Your task to perform on an android device: turn off improve location accuracy Image 0: 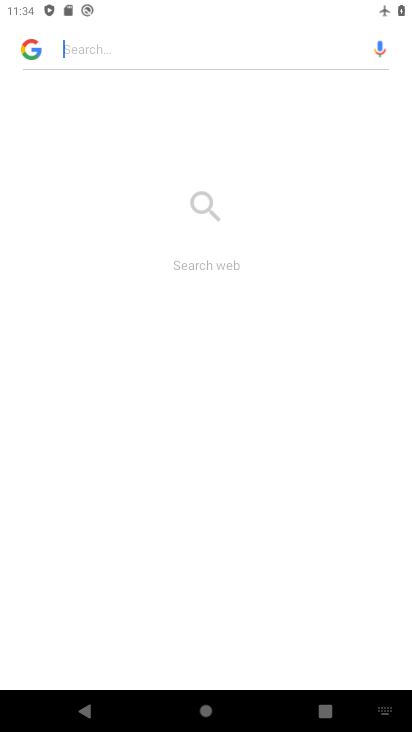
Step 0: press home button
Your task to perform on an android device: turn off improve location accuracy Image 1: 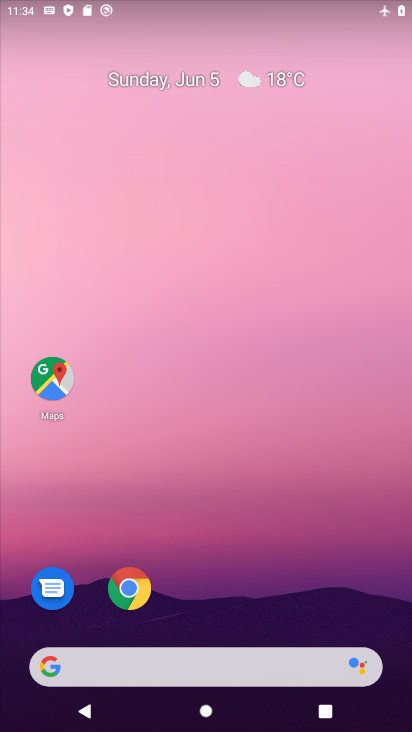
Step 1: drag from (266, 619) to (179, 181)
Your task to perform on an android device: turn off improve location accuracy Image 2: 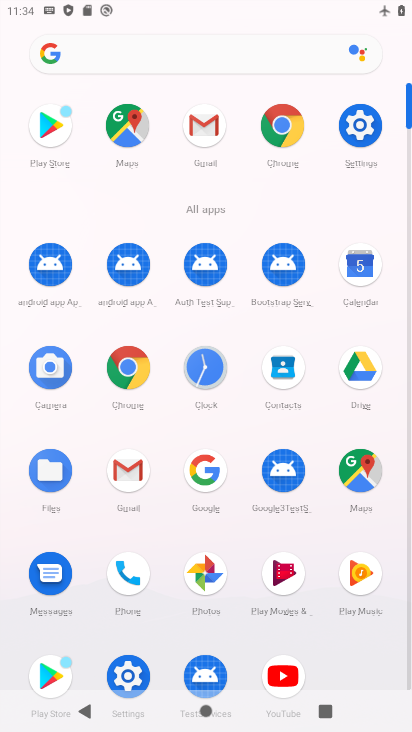
Step 2: click (369, 128)
Your task to perform on an android device: turn off improve location accuracy Image 3: 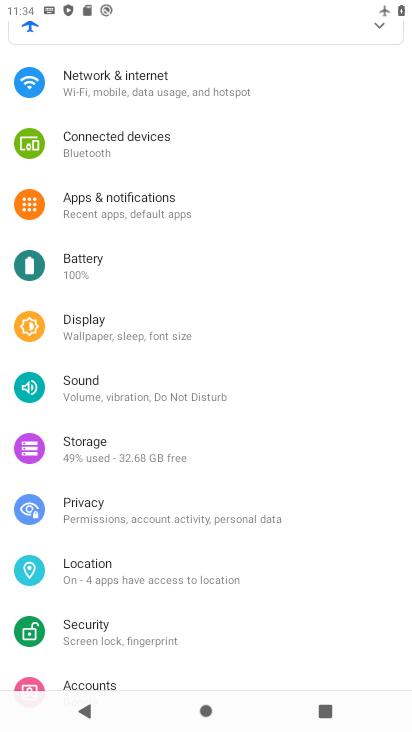
Step 3: click (278, 573)
Your task to perform on an android device: turn off improve location accuracy Image 4: 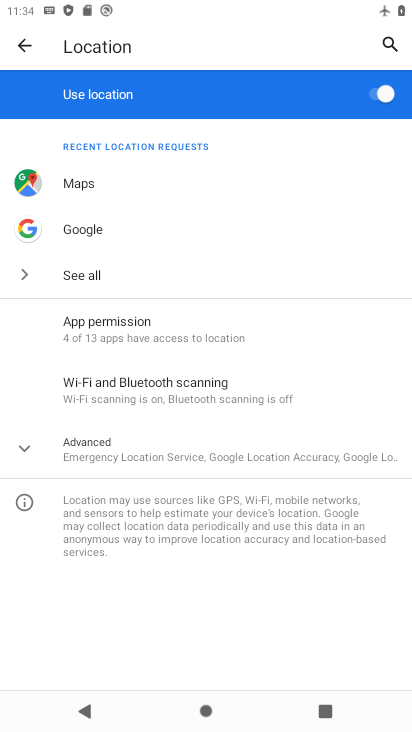
Step 4: click (298, 455)
Your task to perform on an android device: turn off improve location accuracy Image 5: 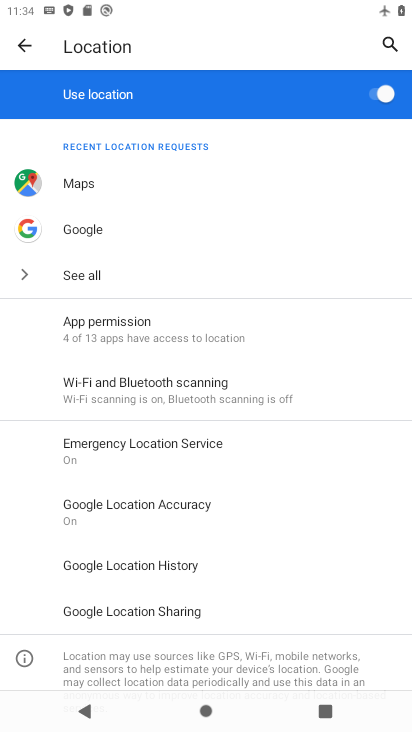
Step 5: click (271, 511)
Your task to perform on an android device: turn off improve location accuracy Image 6: 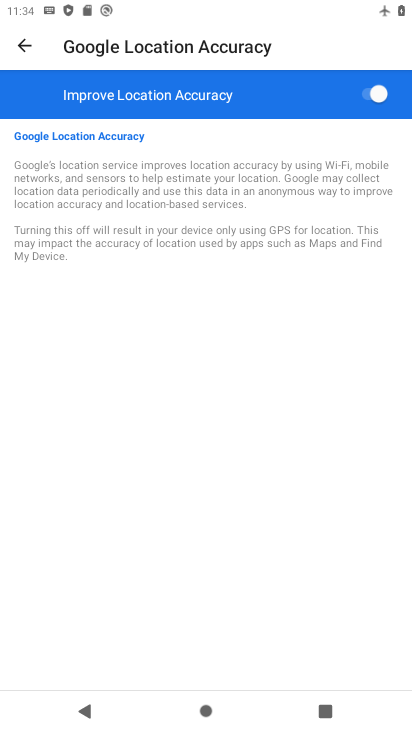
Step 6: click (372, 103)
Your task to perform on an android device: turn off improve location accuracy Image 7: 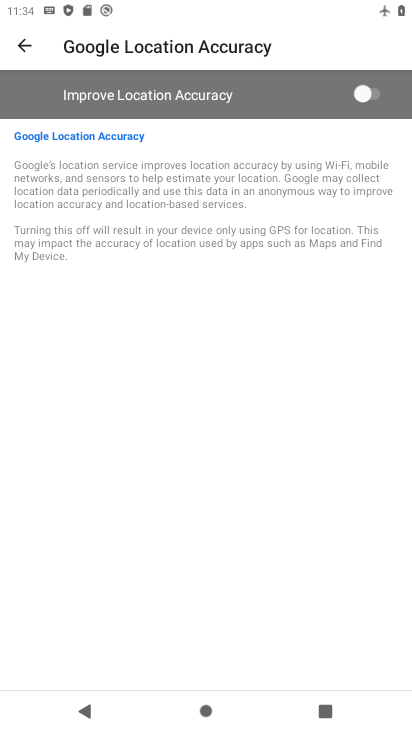
Step 7: task complete